Your task to perform on an android device: see creations saved in the google photos Image 0: 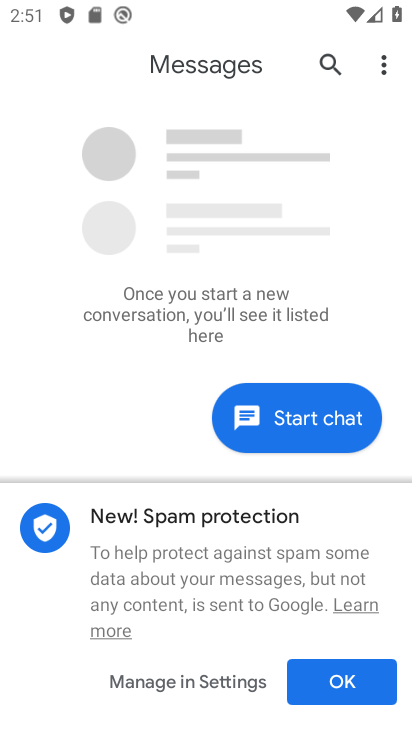
Step 0: press home button
Your task to perform on an android device: see creations saved in the google photos Image 1: 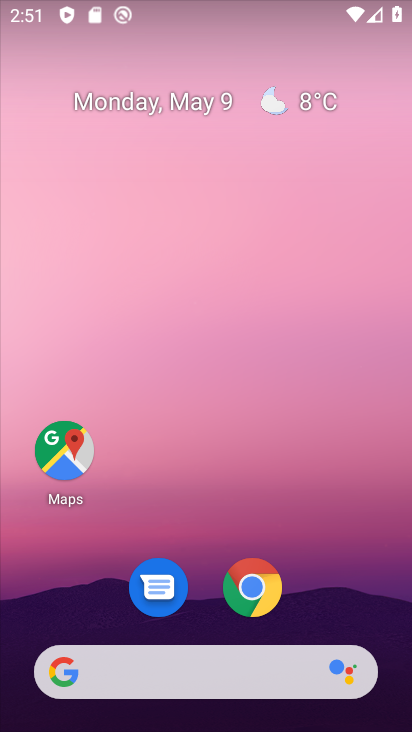
Step 1: drag from (261, 490) to (269, 104)
Your task to perform on an android device: see creations saved in the google photos Image 2: 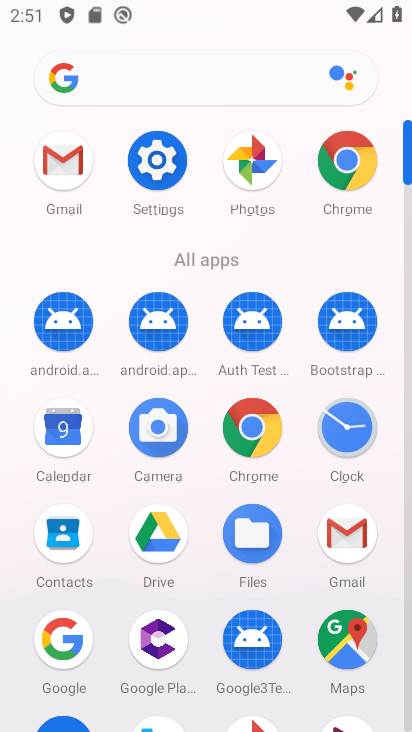
Step 2: drag from (297, 255) to (299, 111)
Your task to perform on an android device: see creations saved in the google photos Image 3: 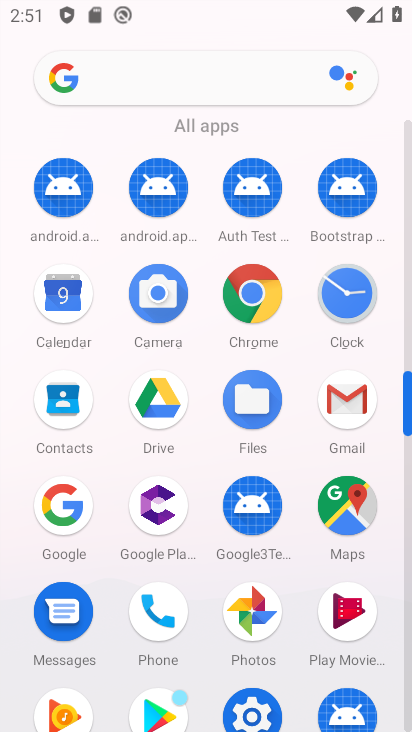
Step 3: click (245, 610)
Your task to perform on an android device: see creations saved in the google photos Image 4: 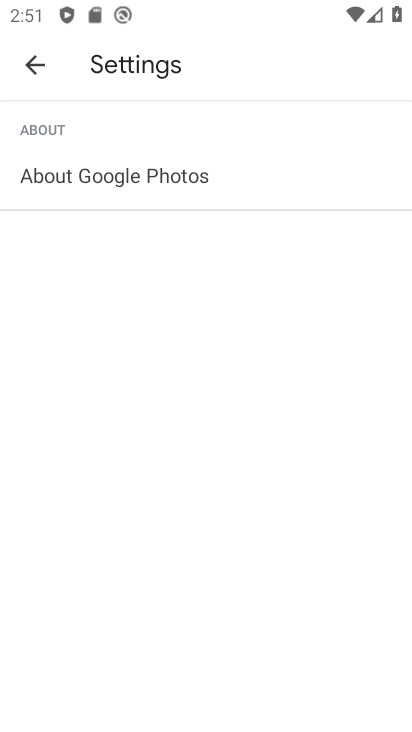
Step 4: click (38, 67)
Your task to perform on an android device: see creations saved in the google photos Image 5: 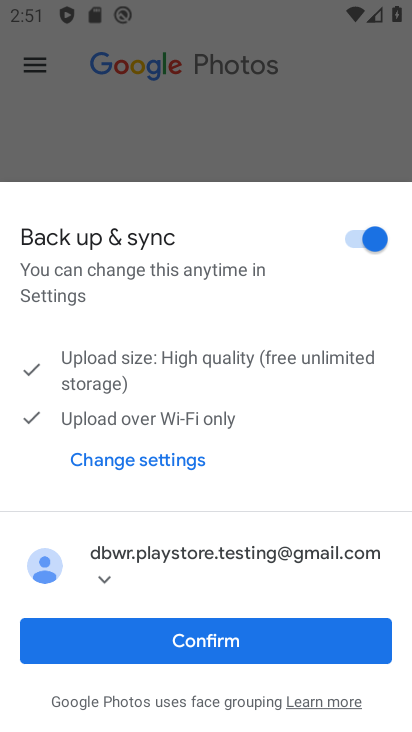
Step 5: click (253, 664)
Your task to perform on an android device: see creations saved in the google photos Image 6: 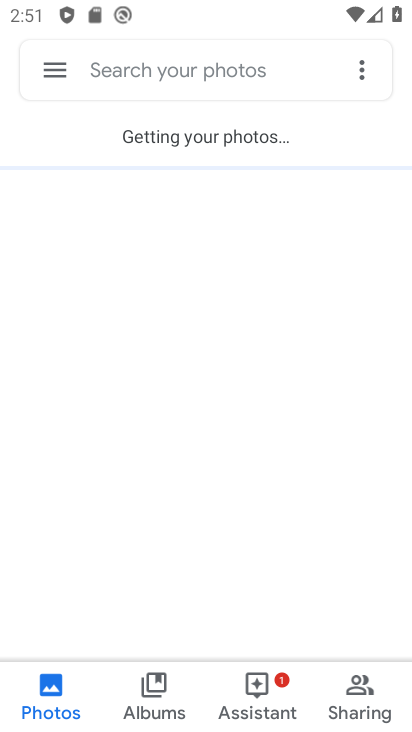
Step 6: click (216, 75)
Your task to perform on an android device: see creations saved in the google photos Image 7: 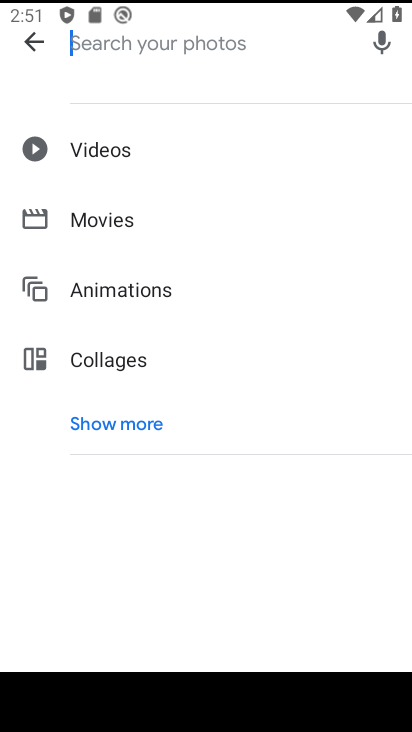
Step 7: drag from (228, 420) to (210, 241)
Your task to perform on an android device: see creations saved in the google photos Image 8: 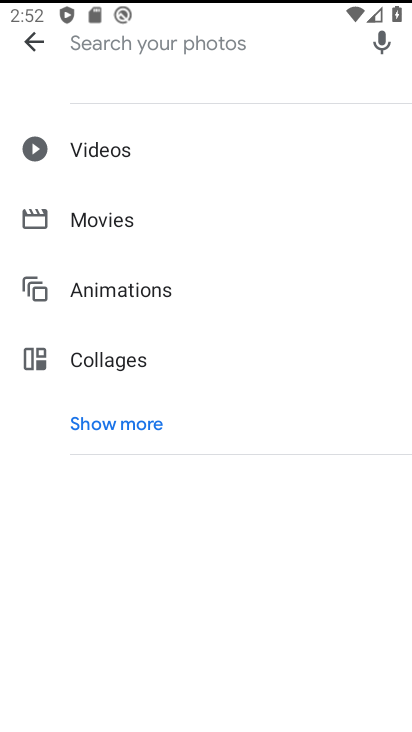
Step 8: click (164, 434)
Your task to perform on an android device: see creations saved in the google photos Image 9: 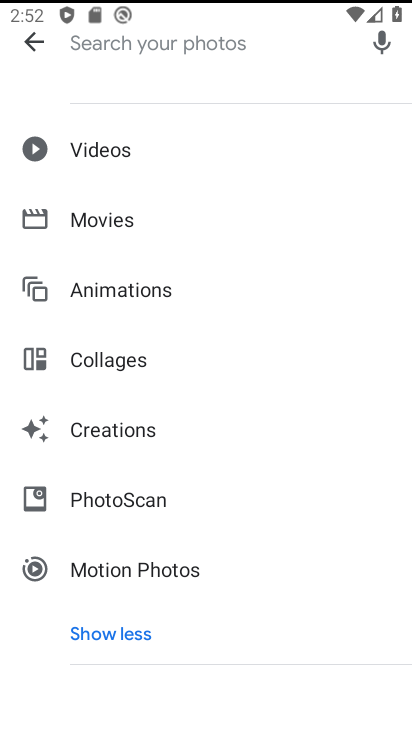
Step 9: drag from (164, 434) to (202, 206)
Your task to perform on an android device: see creations saved in the google photos Image 10: 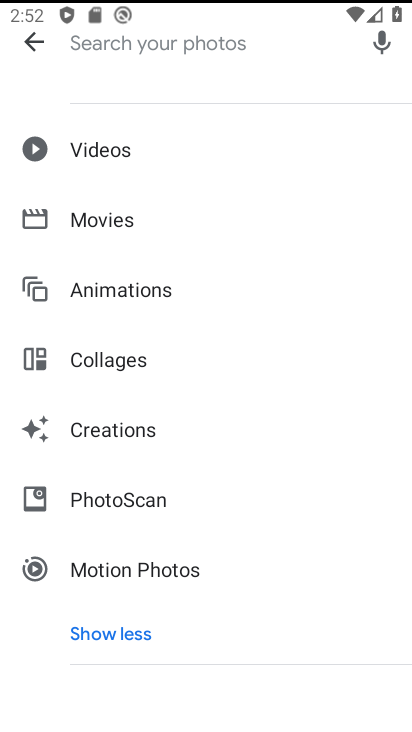
Step 10: click (113, 446)
Your task to perform on an android device: see creations saved in the google photos Image 11: 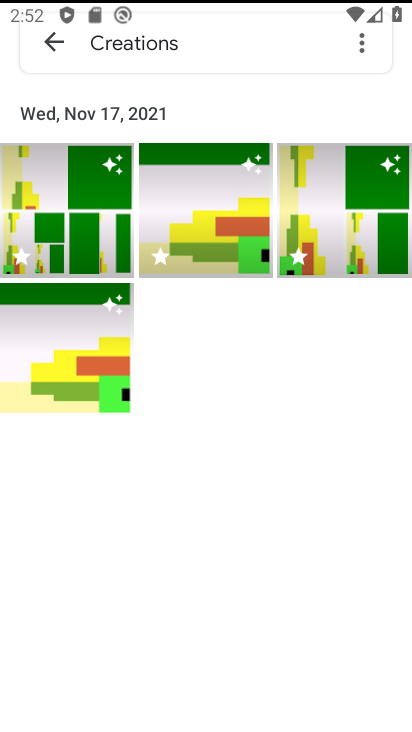
Step 11: task complete